Your task to perform on an android device: turn on bluetooth scan Image 0: 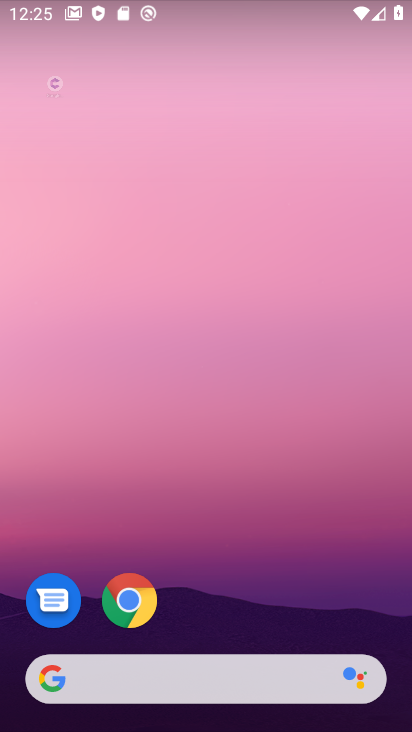
Step 0: drag from (278, 428) to (273, 312)
Your task to perform on an android device: turn on bluetooth scan Image 1: 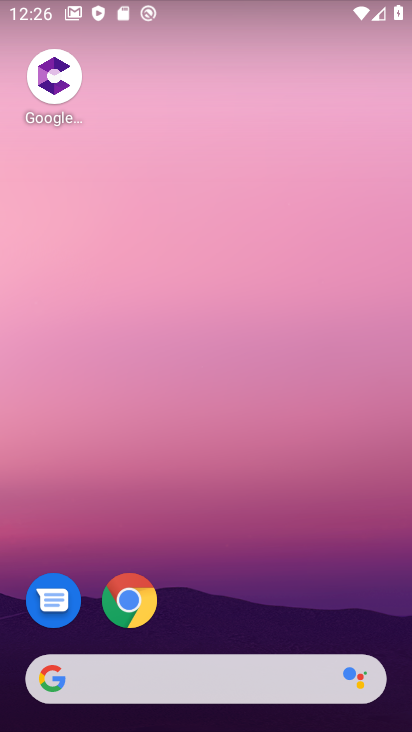
Step 1: drag from (215, 624) to (9, 180)
Your task to perform on an android device: turn on bluetooth scan Image 2: 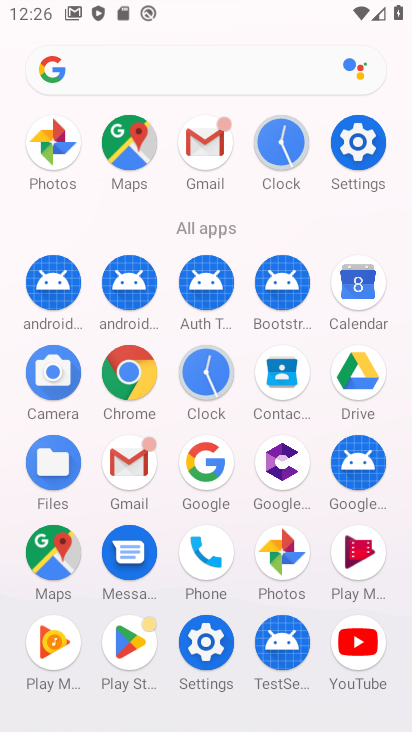
Step 2: click (348, 154)
Your task to perform on an android device: turn on bluetooth scan Image 3: 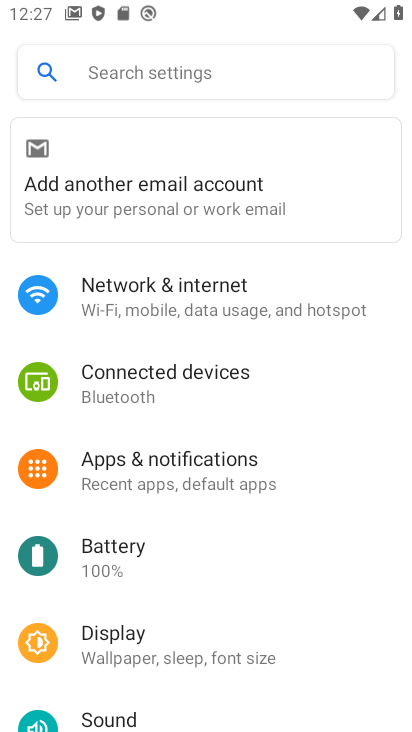
Step 3: drag from (194, 554) to (192, 287)
Your task to perform on an android device: turn on bluetooth scan Image 4: 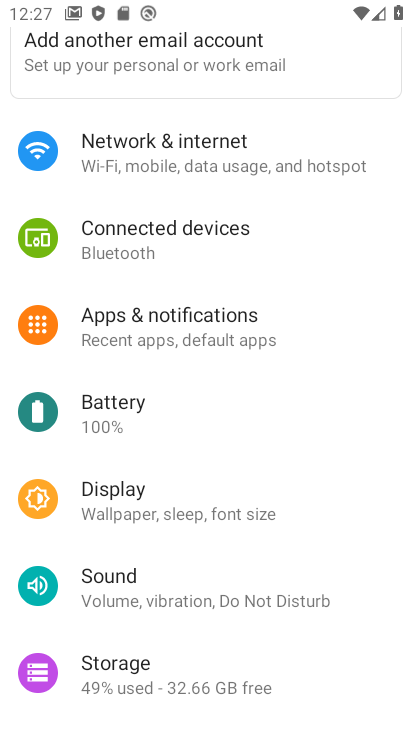
Step 4: drag from (168, 604) to (86, 75)
Your task to perform on an android device: turn on bluetooth scan Image 5: 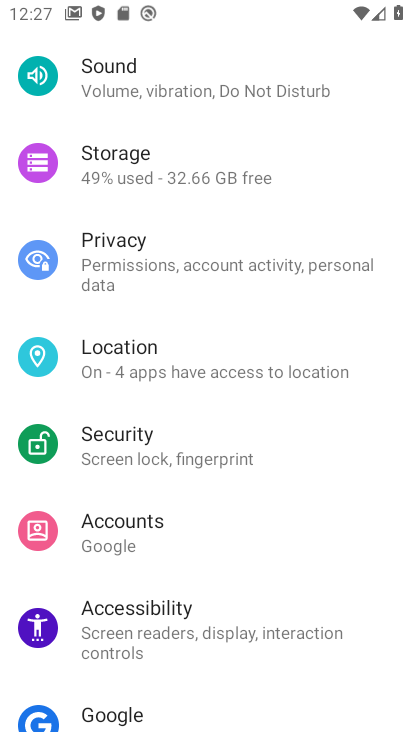
Step 5: click (121, 374)
Your task to perform on an android device: turn on bluetooth scan Image 6: 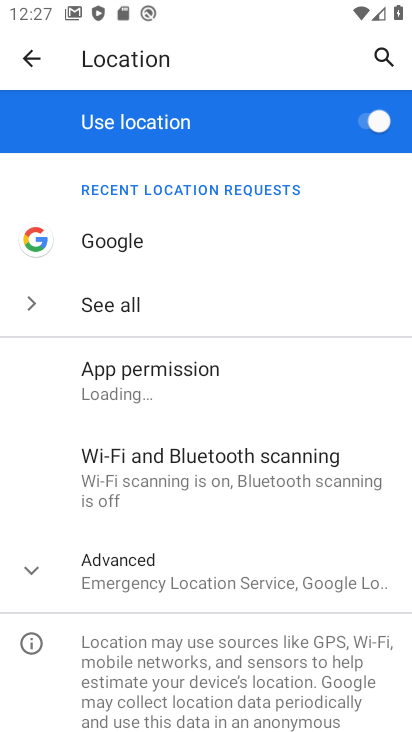
Step 6: click (135, 577)
Your task to perform on an android device: turn on bluetooth scan Image 7: 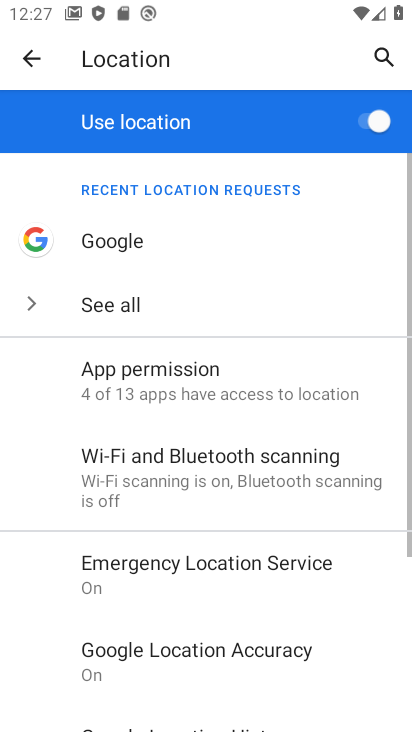
Step 7: click (150, 483)
Your task to perform on an android device: turn on bluetooth scan Image 8: 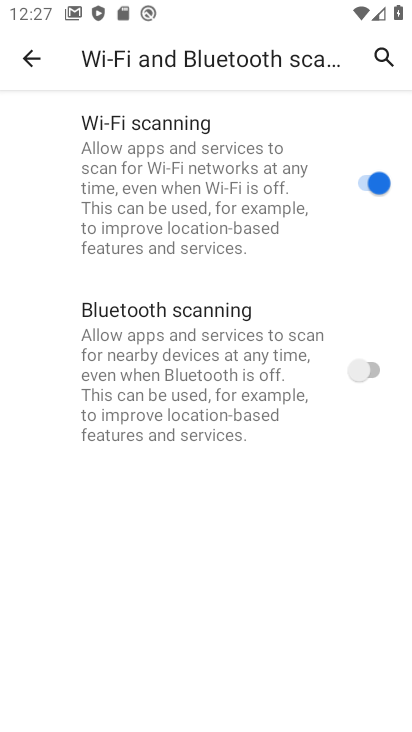
Step 8: click (150, 383)
Your task to perform on an android device: turn on bluetooth scan Image 9: 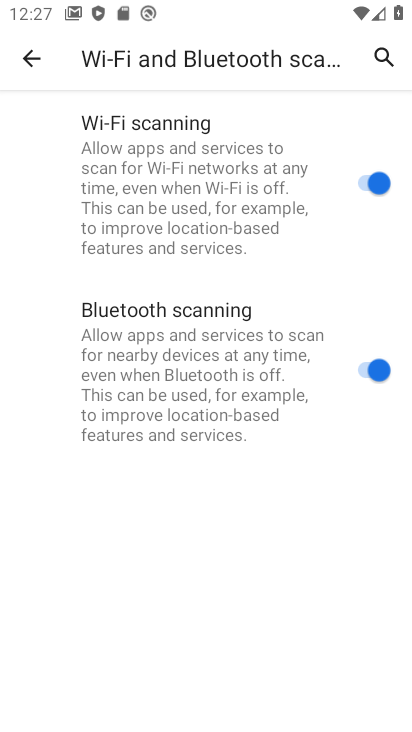
Step 9: task complete